Your task to perform on an android device: turn pop-ups on in chrome Image 0: 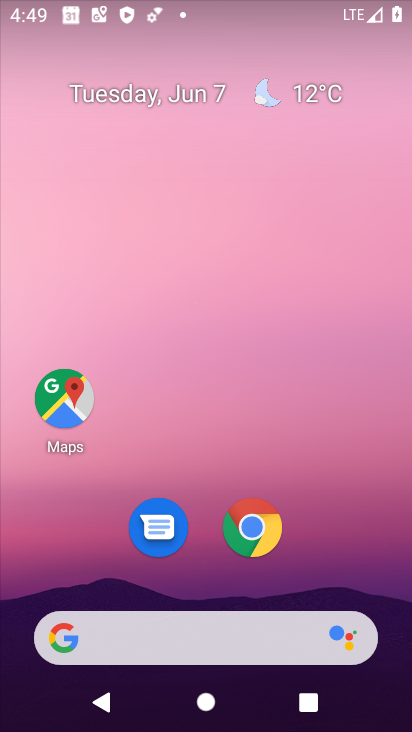
Step 0: click (248, 525)
Your task to perform on an android device: turn pop-ups on in chrome Image 1: 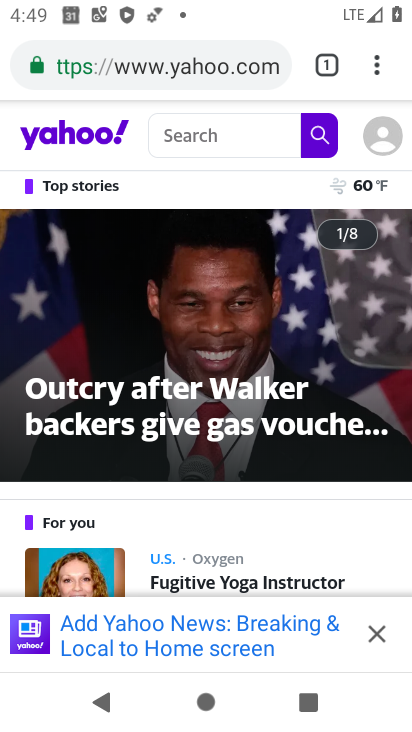
Step 1: click (375, 62)
Your task to perform on an android device: turn pop-ups on in chrome Image 2: 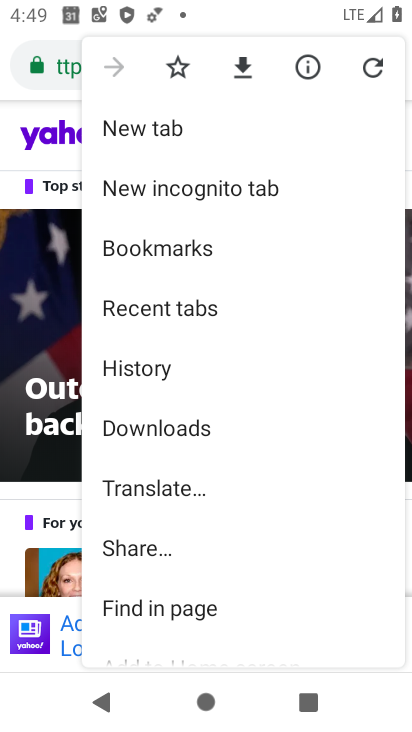
Step 2: drag from (186, 520) to (177, 419)
Your task to perform on an android device: turn pop-ups on in chrome Image 3: 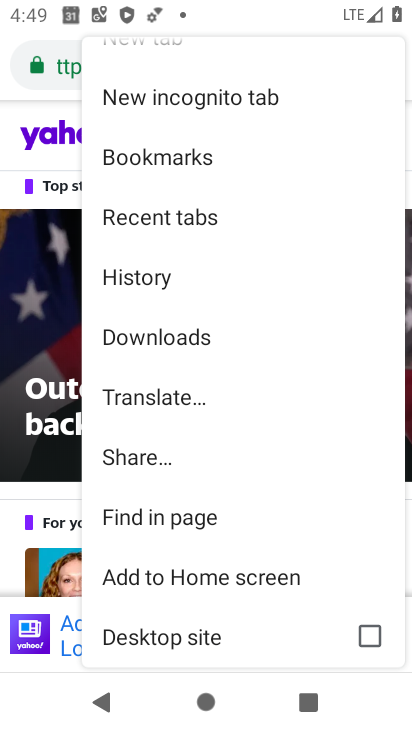
Step 3: drag from (173, 488) to (194, 401)
Your task to perform on an android device: turn pop-ups on in chrome Image 4: 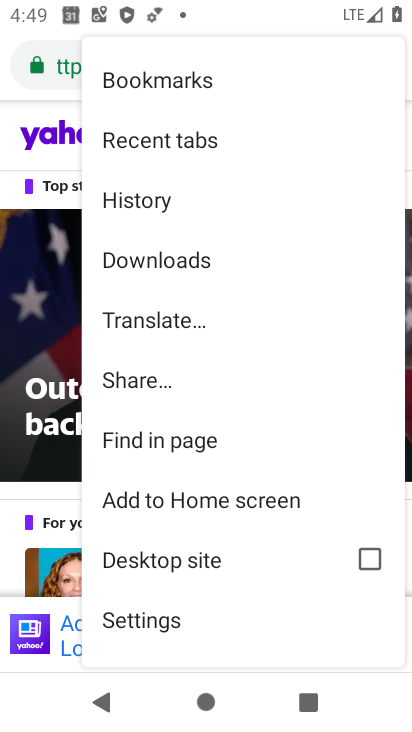
Step 4: drag from (149, 583) to (193, 449)
Your task to perform on an android device: turn pop-ups on in chrome Image 5: 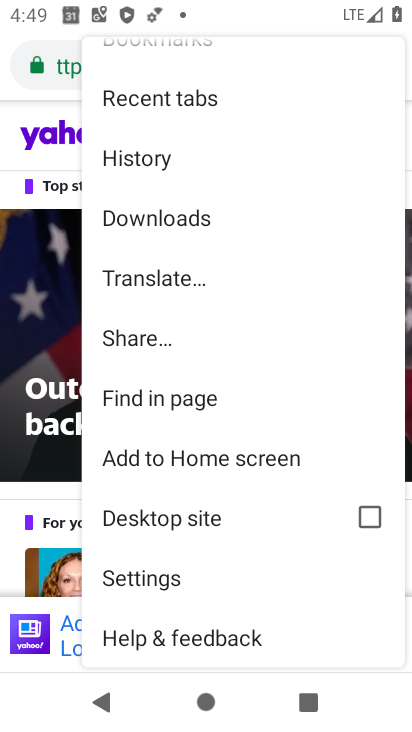
Step 5: click (156, 584)
Your task to perform on an android device: turn pop-ups on in chrome Image 6: 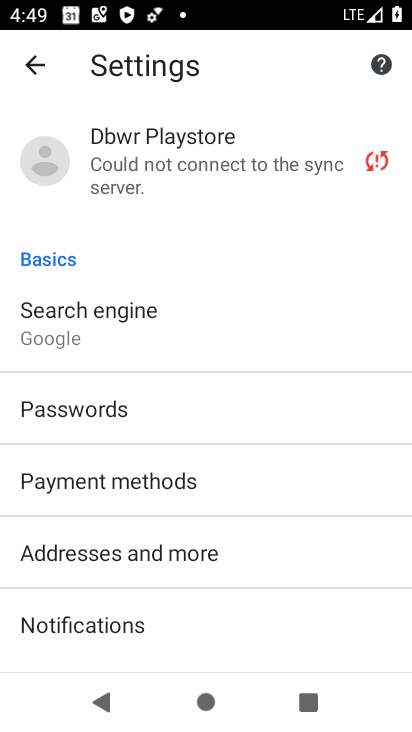
Step 6: drag from (164, 524) to (164, 409)
Your task to perform on an android device: turn pop-ups on in chrome Image 7: 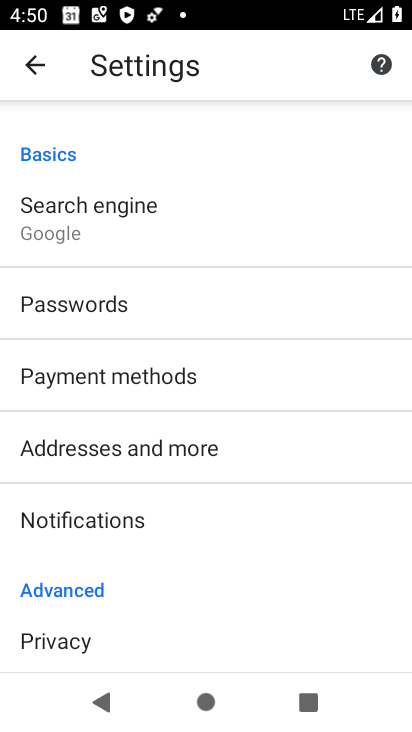
Step 7: drag from (134, 563) to (163, 456)
Your task to perform on an android device: turn pop-ups on in chrome Image 8: 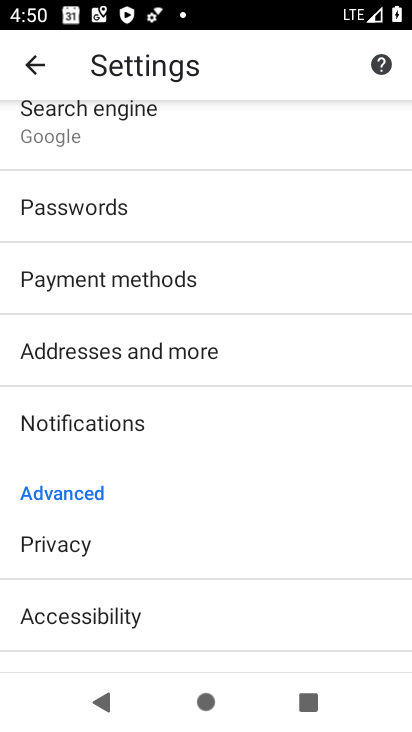
Step 8: drag from (174, 624) to (185, 492)
Your task to perform on an android device: turn pop-ups on in chrome Image 9: 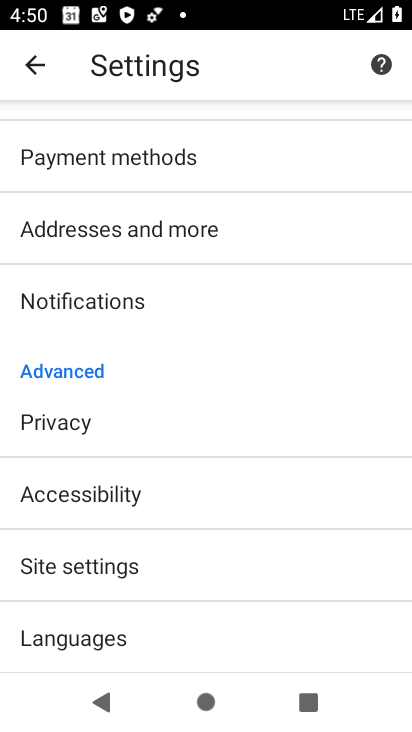
Step 9: click (95, 569)
Your task to perform on an android device: turn pop-ups on in chrome Image 10: 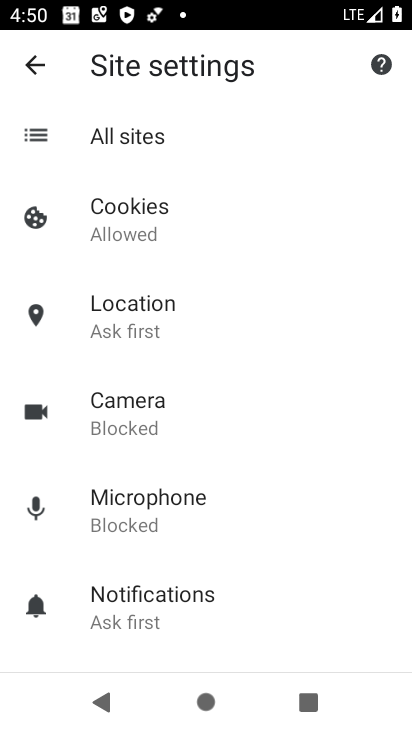
Step 10: drag from (167, 538) to (186, 429)
Your task to perform on an android device: turn pop-ups on in chrome Image 11: 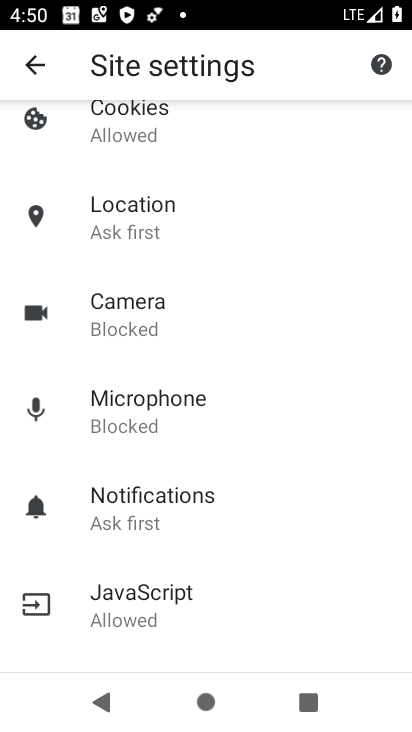
Step 11: drag from (125, 548) to (154, 436)
Your task to perform on an android device: turn pop-ups on in chrome Image 12: 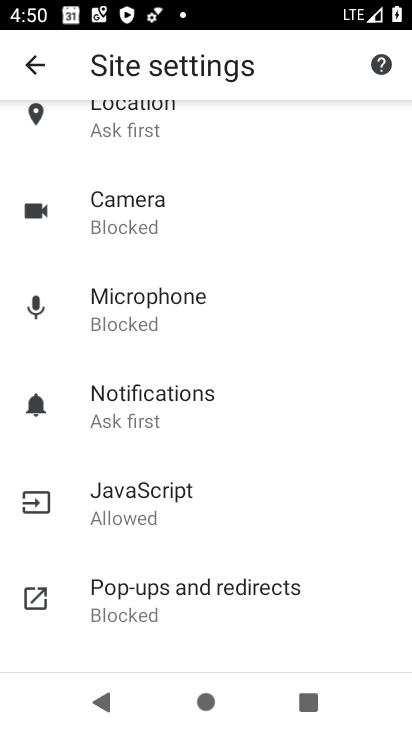
Step 12: drag from (126, 542) to (184, 431)
Your task to perform on an android device: turn pop-ups on in chrome Image 13: 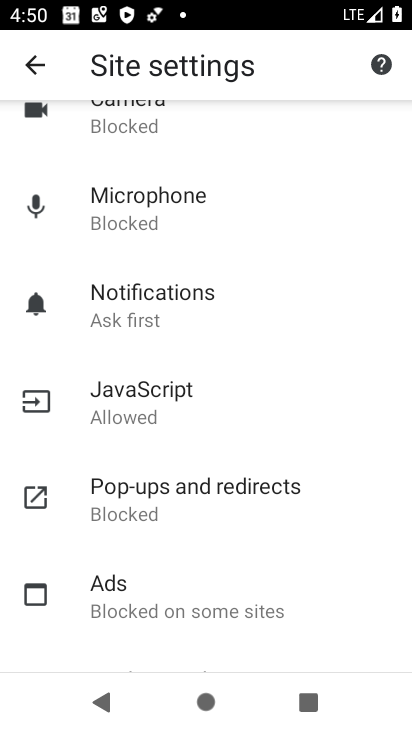
Step 13: click (152, 499)
Your task to perform on an android device: turn pop-ups on in chrome Image 14: 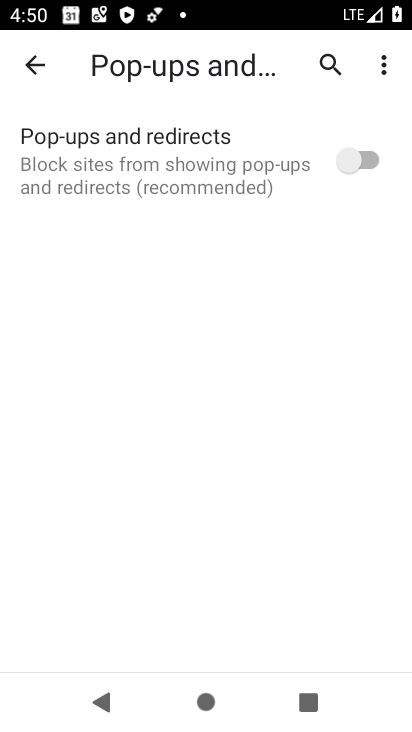
Step 14: click (375, 158)
Your task to perform on an android device: turn pop-ups on in chrome Image 15: 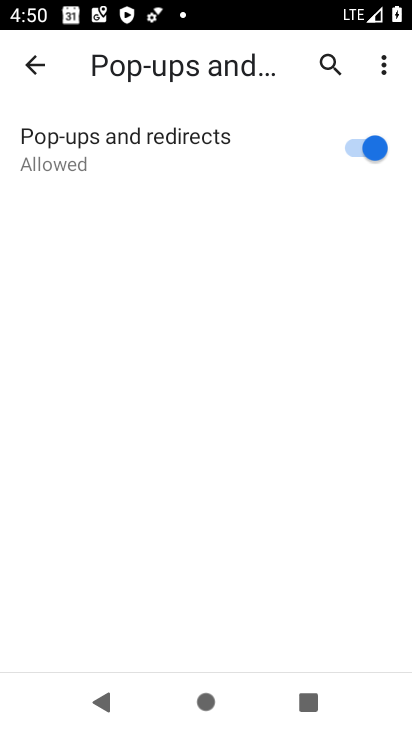
Step 15: task complete